Your task to perform on an android device: Show me the alarms in the clock app Image 0: 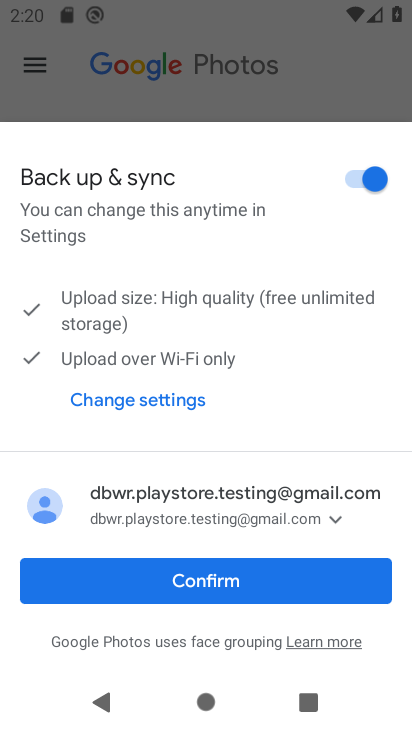
Step 0: press home button
Your task to perform on an android device: Show me the alarms in the clock app Image 1: 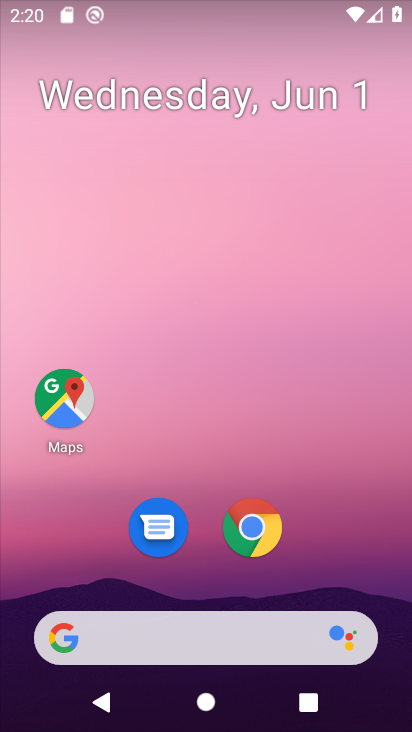
Step 1: drag from (203, 574) to (194, 198)
Your task to perform on an android device: Show me the alarms in the clock app Image 2: 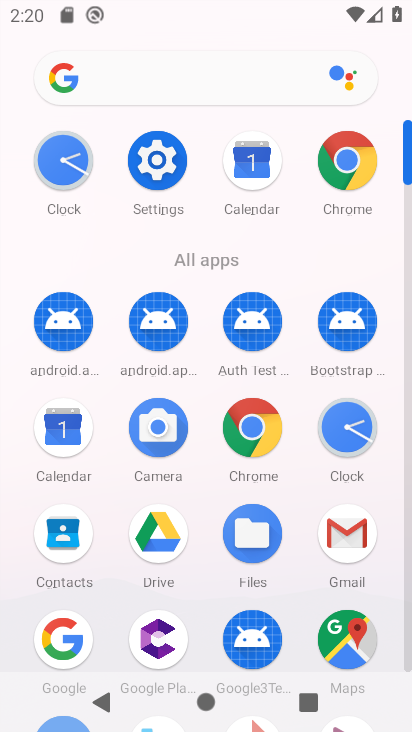
Step 2: click (357, 432)
Your task to perform on an android device: Show me the alarms in the clock app Image 3: 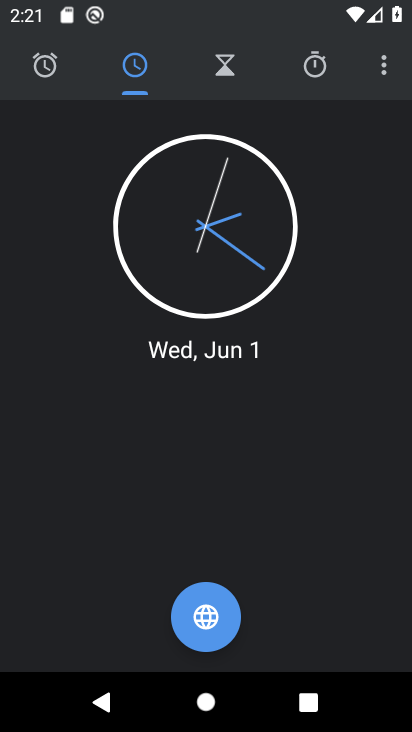
Step 3: click (21, 65)
Your task to perform on an android device: Show me the alarms in the clock app Image 4: 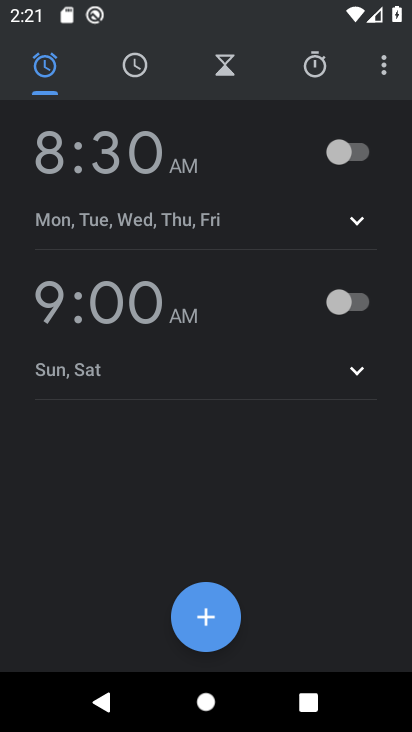
Step 4: task complete